Your task to perform on an android device: Open Reddit.com Image 0: 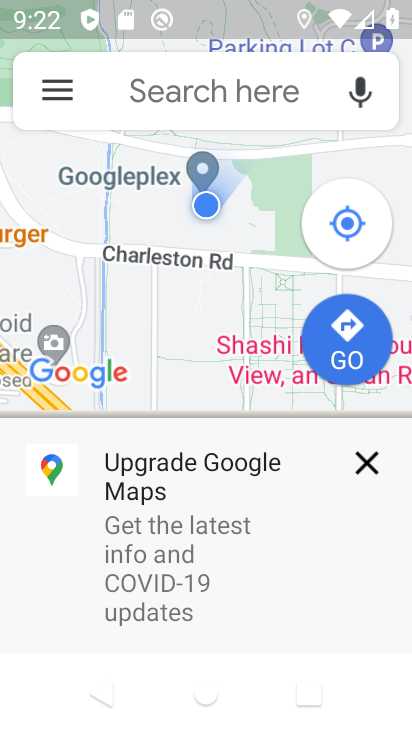
Step 0: press home button
Your task to perform on an android device: Open Reddit.com Image 1: 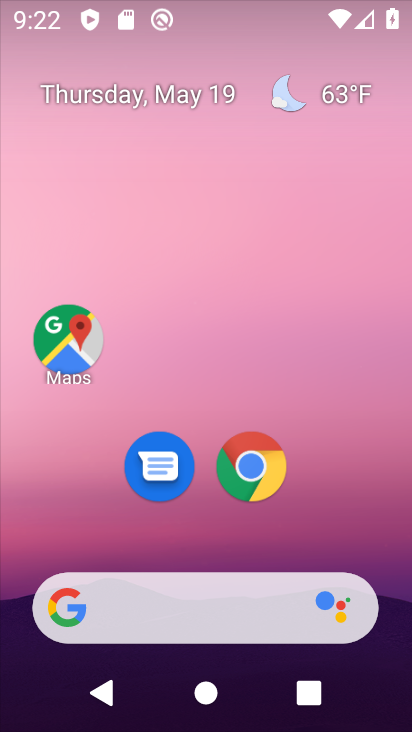
Step 1: drag from (402, 650) to (321, 79)
Your task to perform on an android device: Open Reddit.com Image 2: 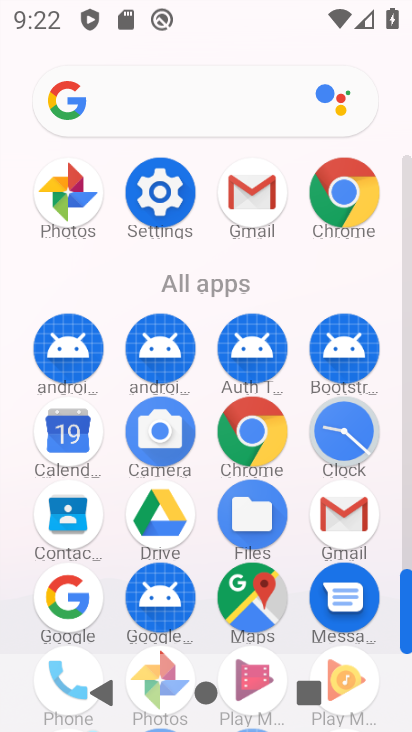
Step 2: click (70, 596)
Your task to perform on an android device: Open Reddit.com Image 3: 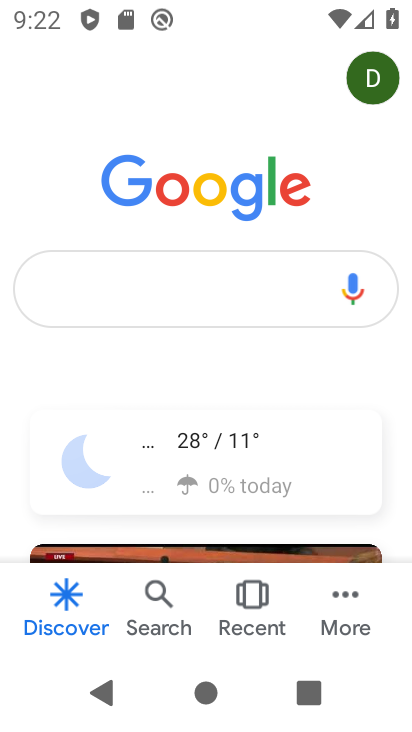
Step 3: click (165, 272)
Your task to perform on an android device: Open Reddit.com Image 4: 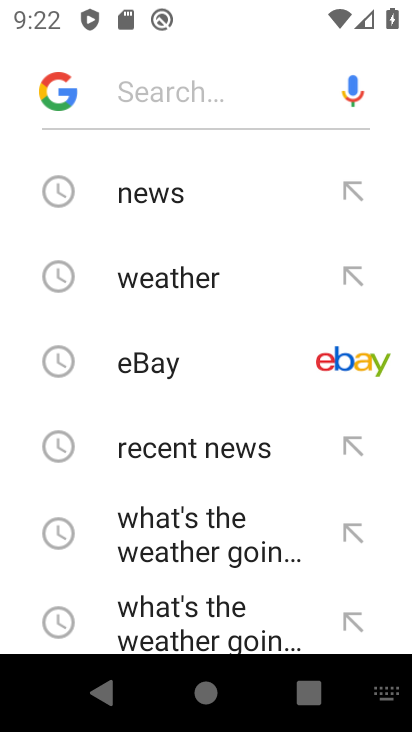
Step 4: drag from (205, 535) to (193, 133)
Your task to perform on an android device: Open Reddit.com Image 5: 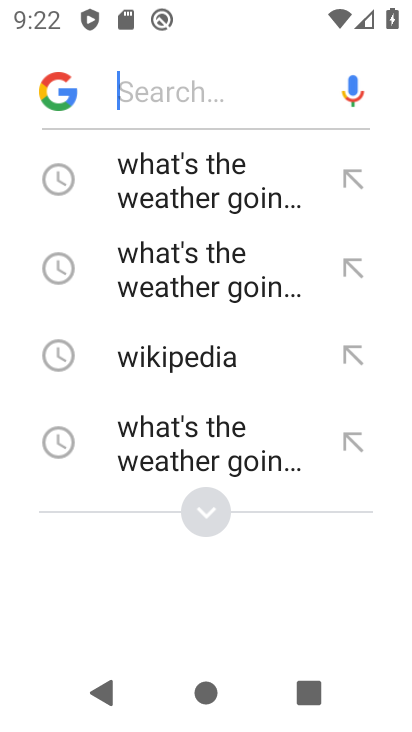
Step 5: click (199, 523)
Your task to perform on an android device: Open Reddit.com Image 6: 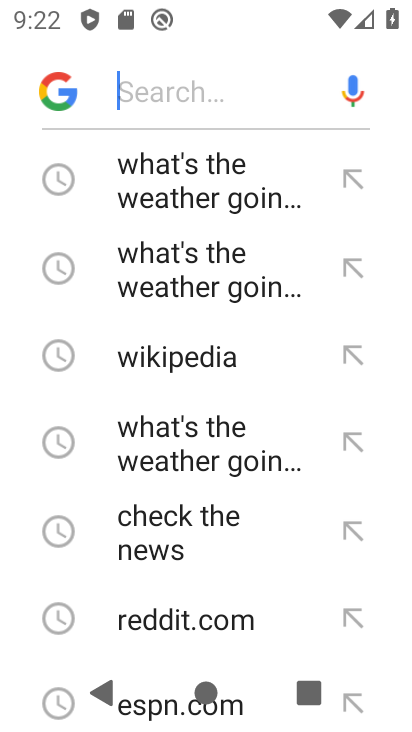
Step 6: drag from (187, 649) to (198, 143)
Your task to perform on an android device: Open Reddit.com Image 7: 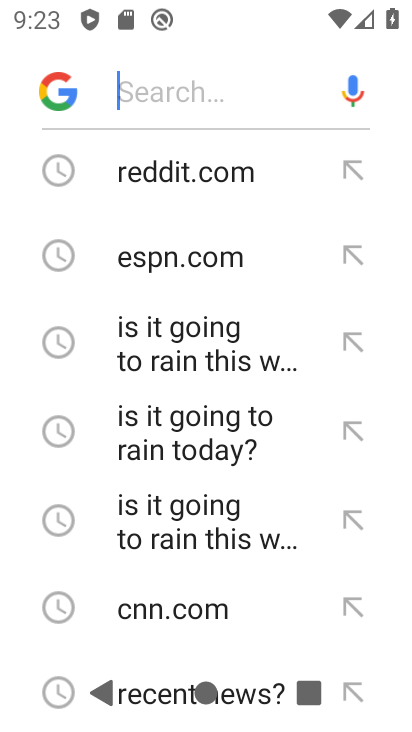
Step 7: drag from (182, 614) to (198, 254)
Your task to perform on an android device: Open Reddit.com Image 8: 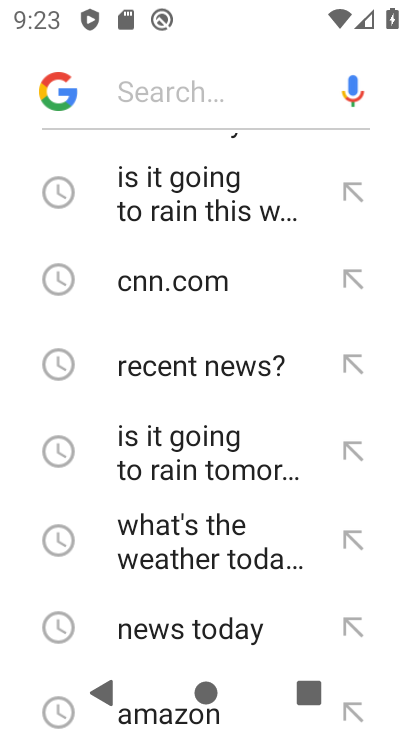
Step 8: drag from (198, 254) to (228, 589)
Your task to perform on an android device: Open Reddit.com Image 9: 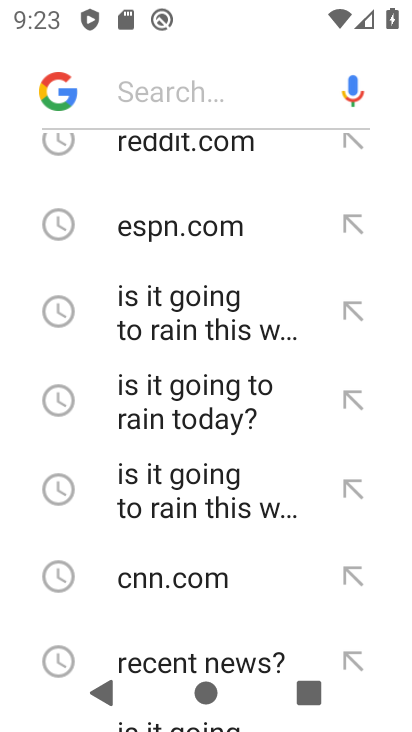
Step 9: click (207, 153)
Your task to perform on an android device: Open Reddit.com Image 10: 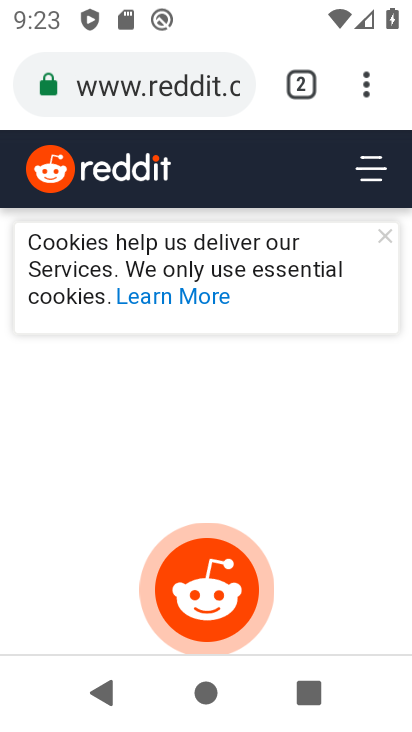
Step 10: task complete